Your task to perform on an android device: check android version Image 0: 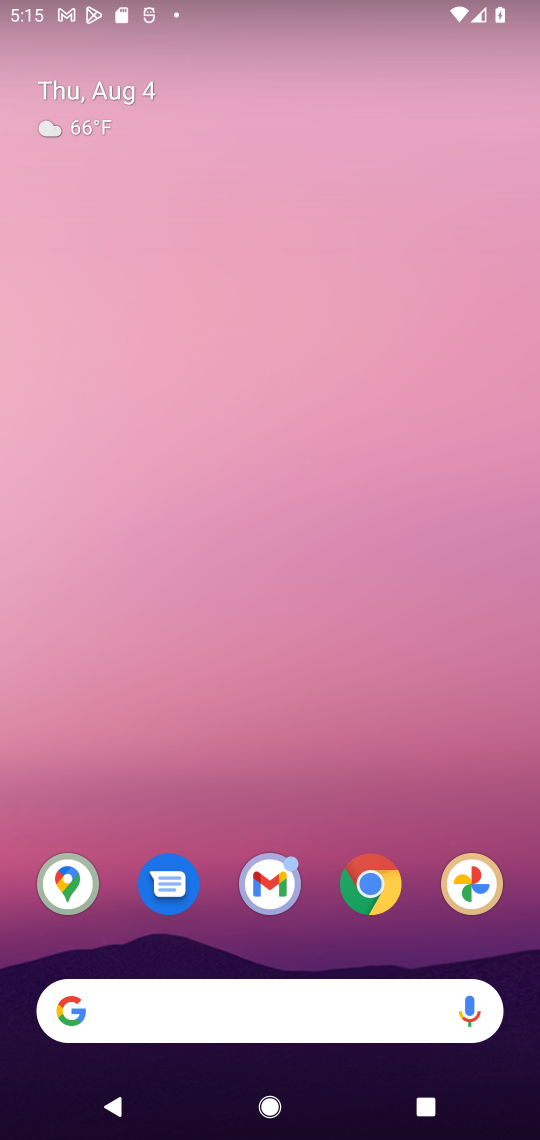
Step 0: drag from (314, 947) to (373, 42)
Your task to perform on an android device: check android version Image 1: 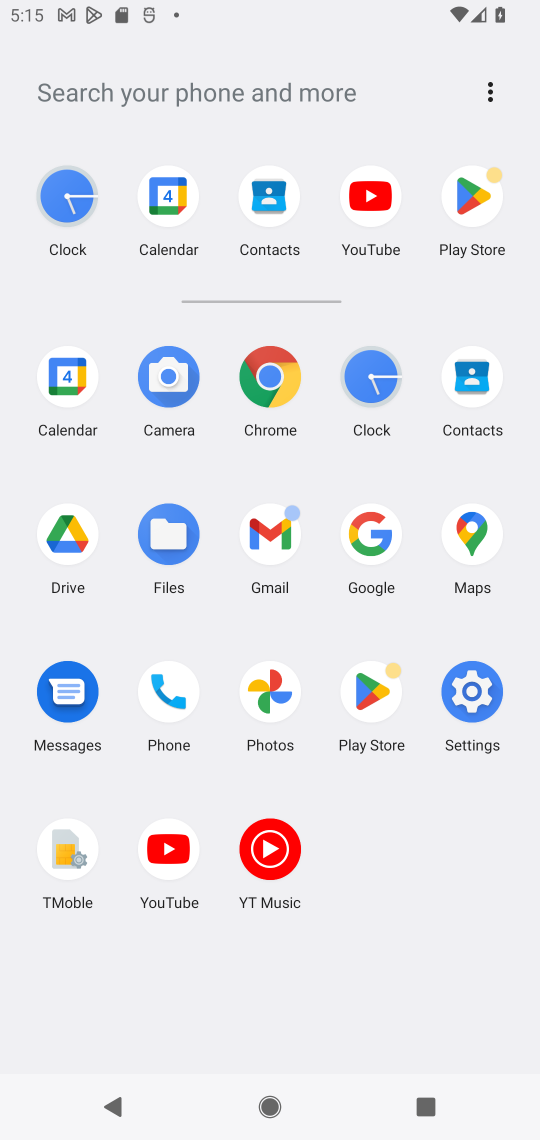
Step 1: click (454, 716)
Your task to perform on an android device: check android version Image 2: 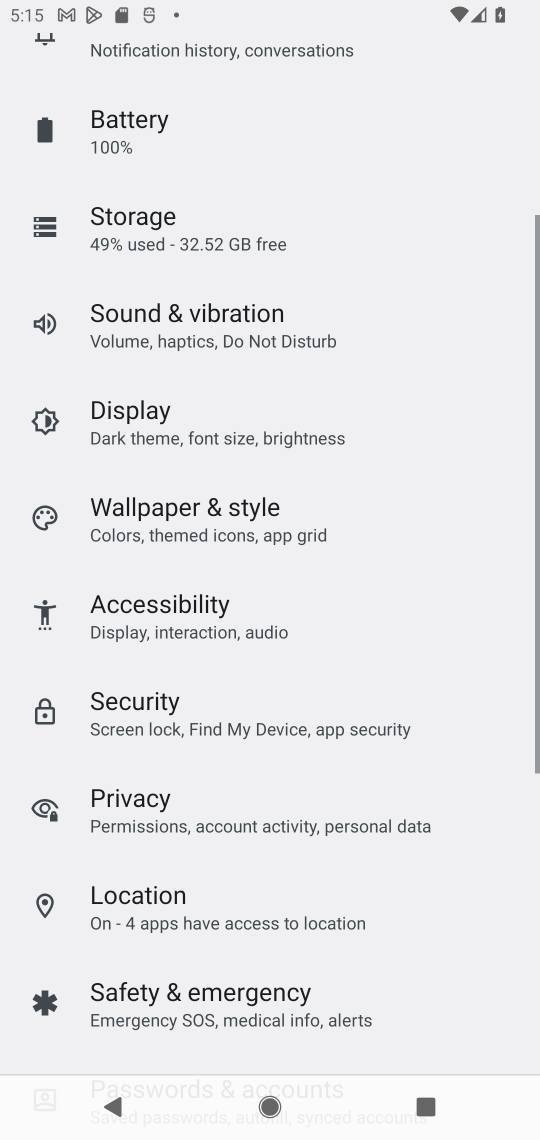
Step 2: task complete